Your task to perform on an android device: check battery use Image 0: 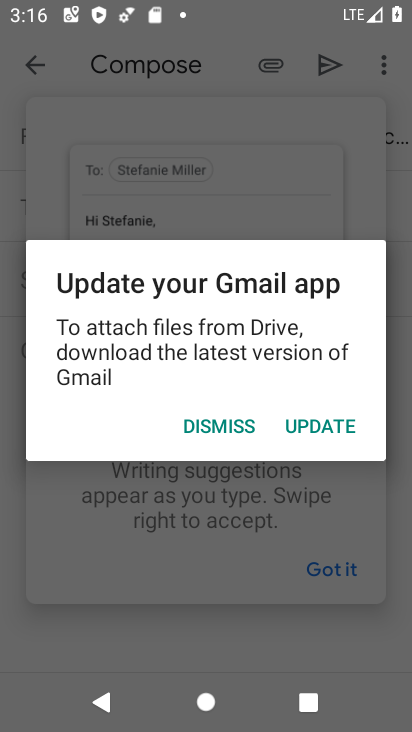
Step 0: press home button
Your task to perform on an android device: check battery use Image 1: 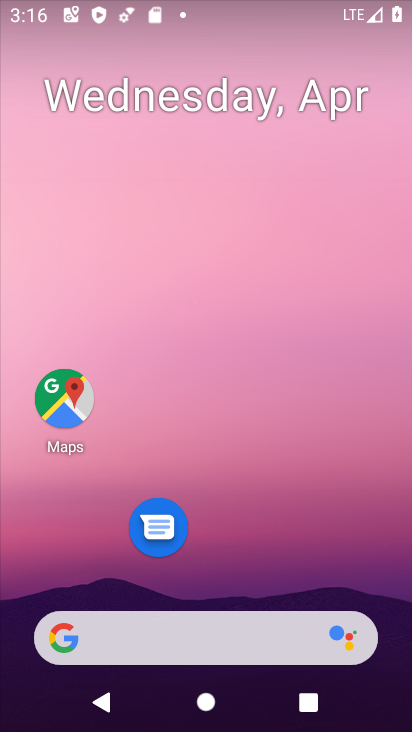
Step 1: drag from (232, 530) to (259, 20)
Your task to perform on an android device: check battery use Image 2: 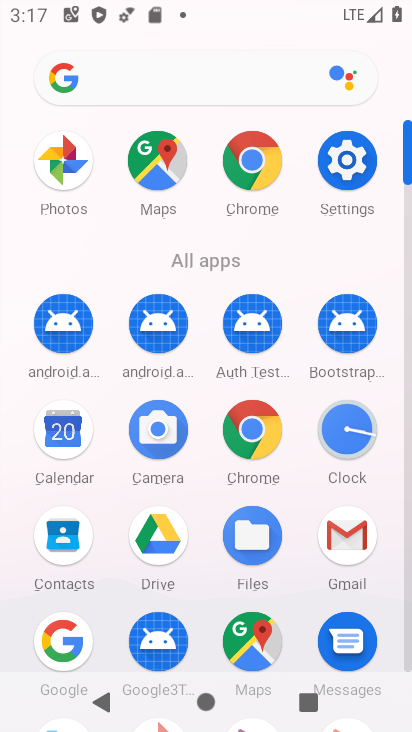
Step 2: click (342, 175)
Your task to perform on an android device: check battery use Image 3: 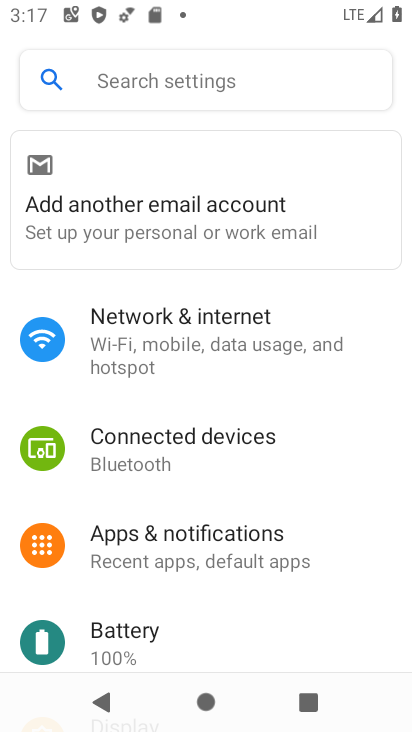
Step 3: click (168, 645)
Your task to perform on an android device: check battery use Image 4: 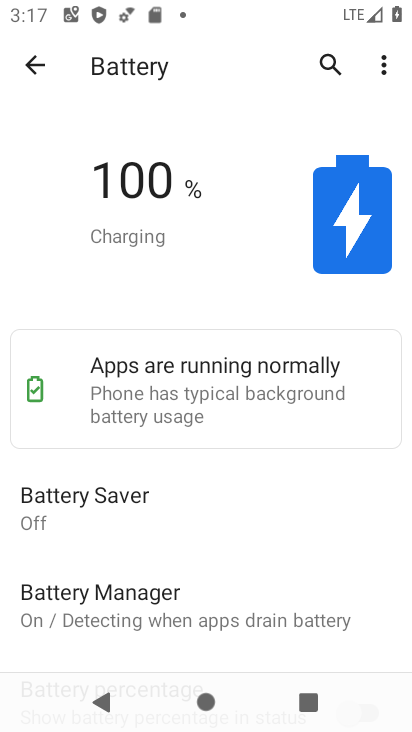
Step 4: task complete